Your task to perform on an android device: Go to internet settings Image 0: 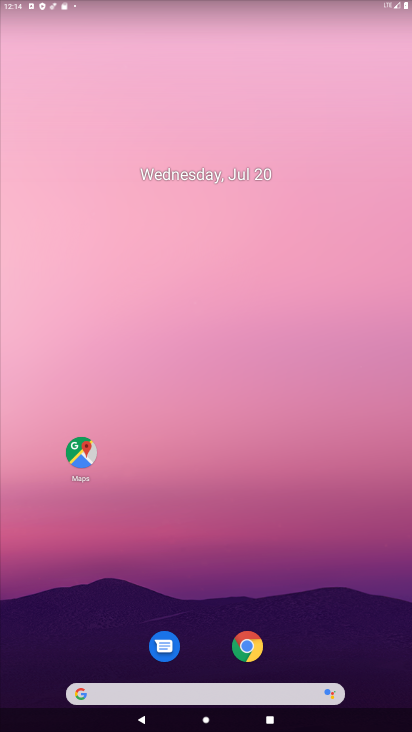
Step 0: drag from (129, 1) to (178, 295)
Your task to perform on an android device: Go to internet settings Image 1: 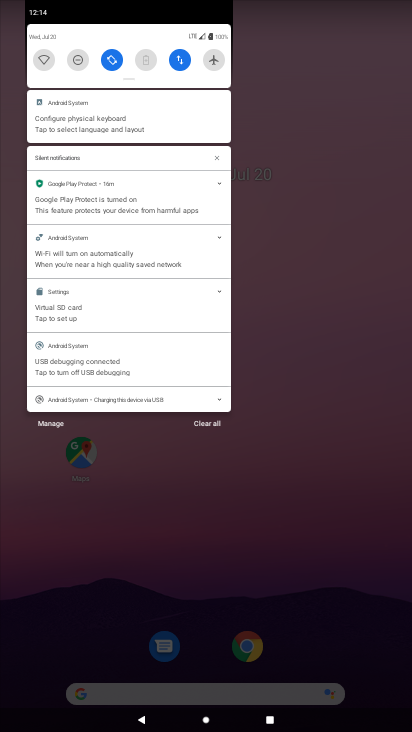
Step 1: click (188, 61)
Your task to perform on an android device: Go to internet settings Image 2: 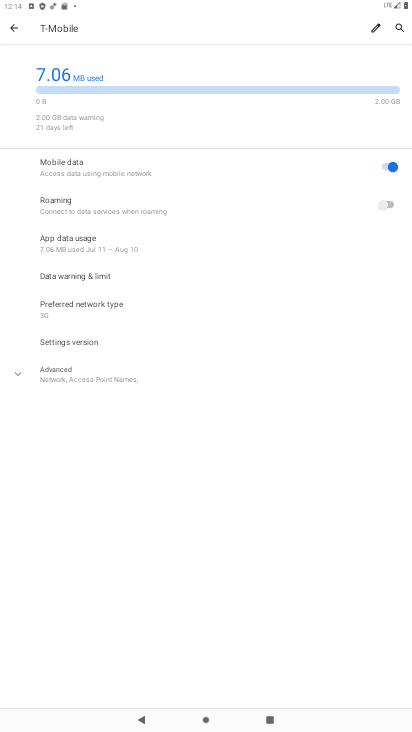
Step 2: task complete